Your task to perform on an android device: toggle airplane mode Image 0: 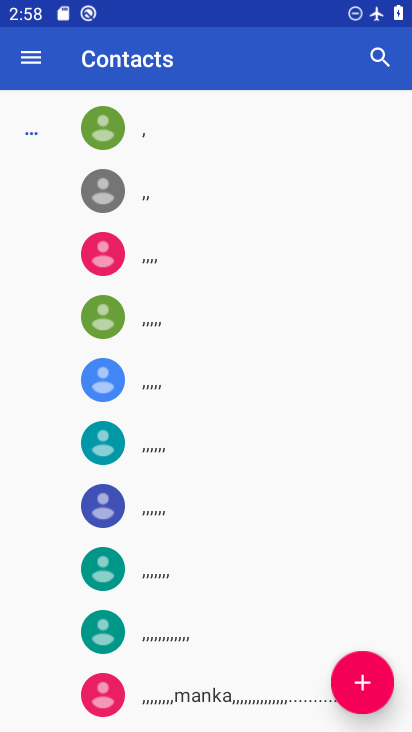
Step 0: press home button
Your task to perform on an android device: toggle airplane mode Image 1: 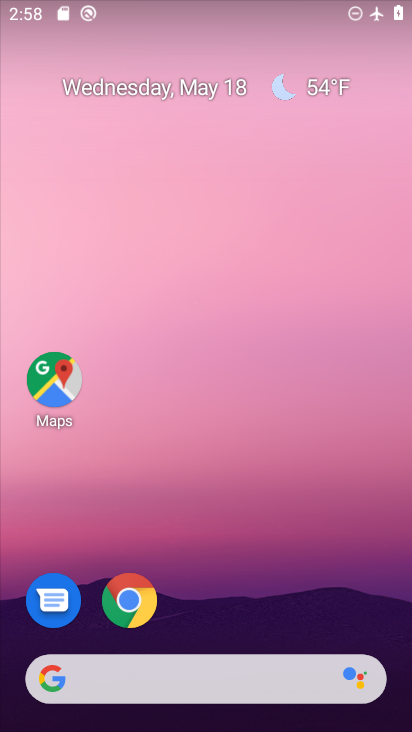
Step 1: drag from (222, 361) to (287, 6)
Your task to perform on an android device: toggle airplane mode Image 2: 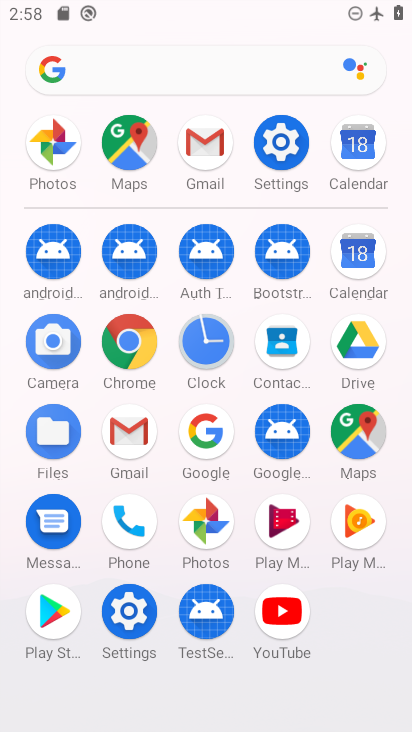
Step 2: click (296, 163)
Your task to perform on an android device: toggle airplane mode Image 3: 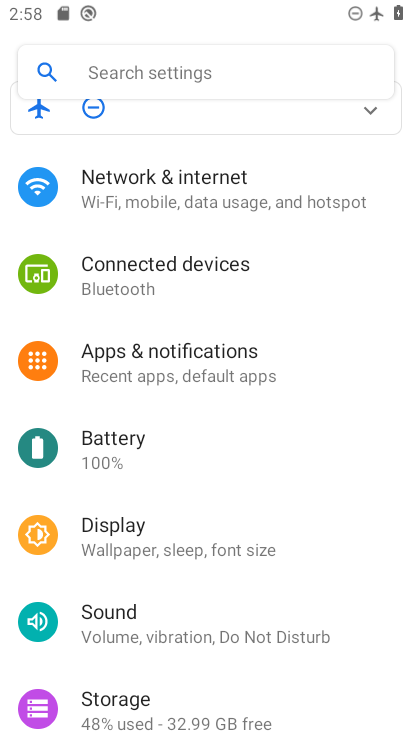
Step 3: click (234, 203)
Your task to perform on an android device: toggle airplane mode Image 4: 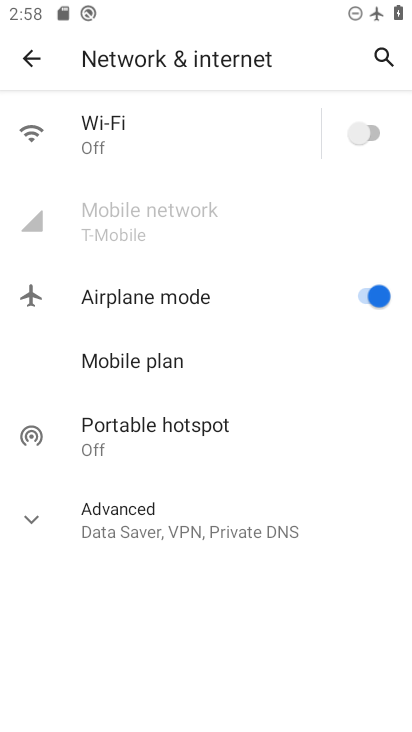
Step 4: click (366, 292)
Your task to perform on an android device: toggle airplane mode Image 5: 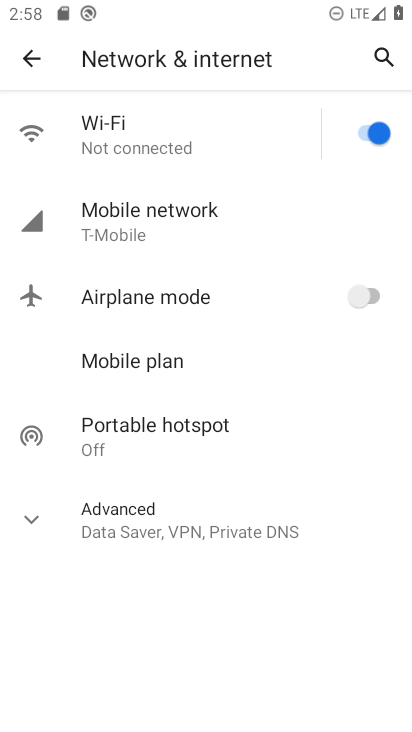
Step 5: task complete